Your task to perform on an android device: Open notification settings Image 0: 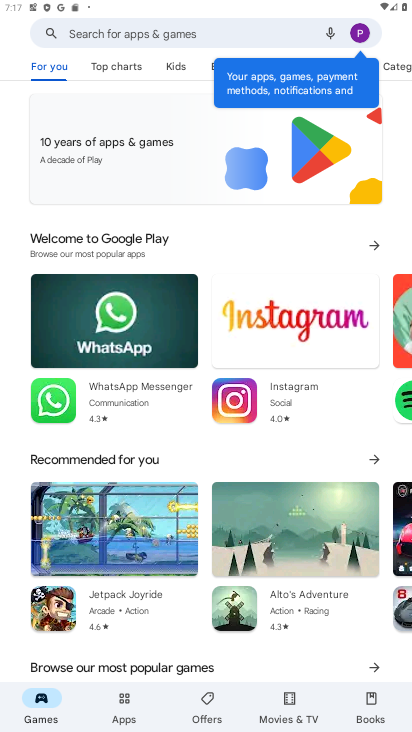
Step 0: press home button
Your task to perform on an android device: Open notification settings Image 1: 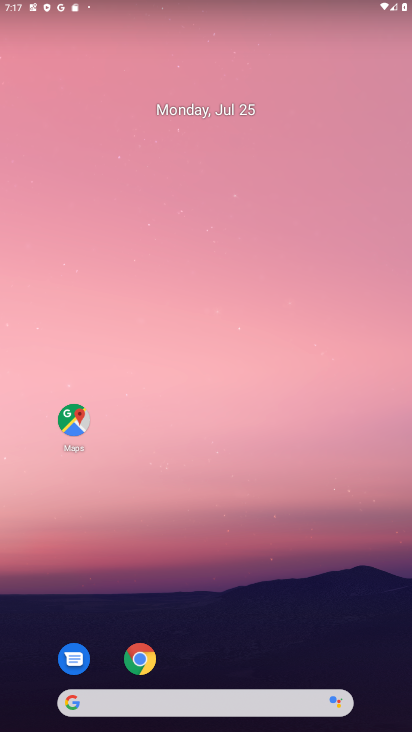
Step 1: drag from (197, 593) to (237, 90)
Your task to perform on an android device: Open notification settings Image 2: 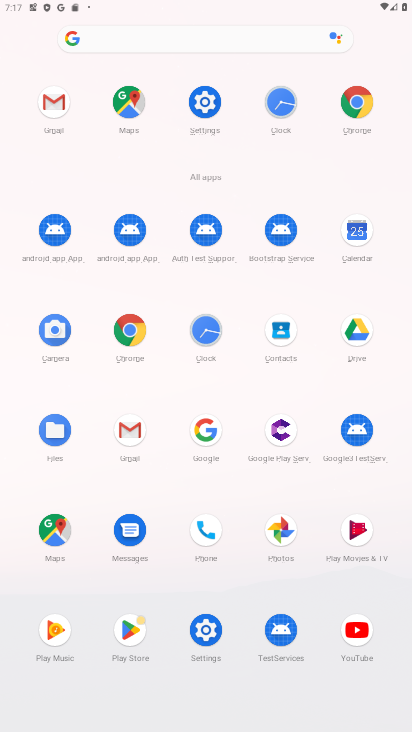
Step 2: click (199, 116)
Your task to perform on an android device: Open notification settings Image 3: 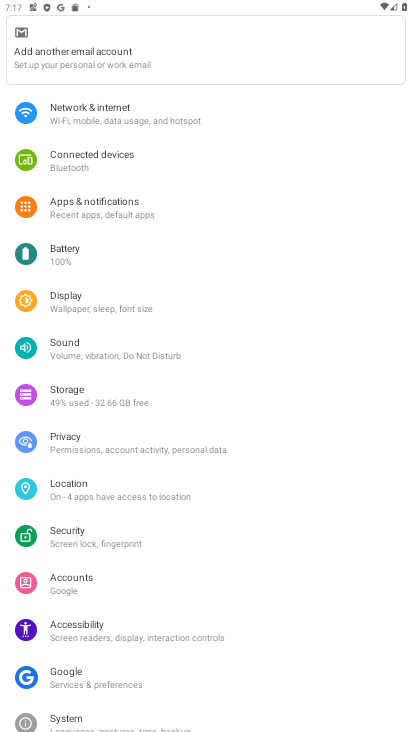
Step 3: click (79, 218)
Your task to perform on an android device: Open notification settings Image 4: 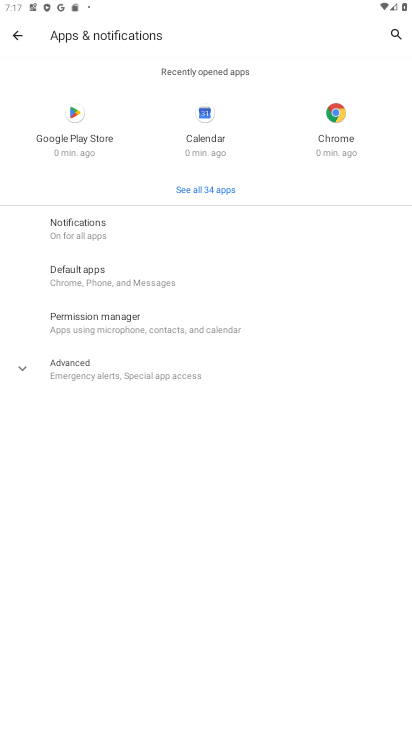
Step 4: task complete